Your task to perform on an android device: add a contact in the contacts app Image 0: 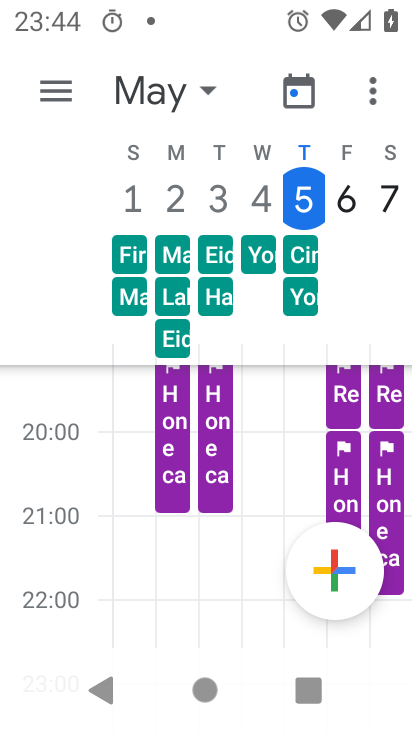
Step 0: press home button
Your task to perform on an android device: add a contact in the contacts app Image 1: 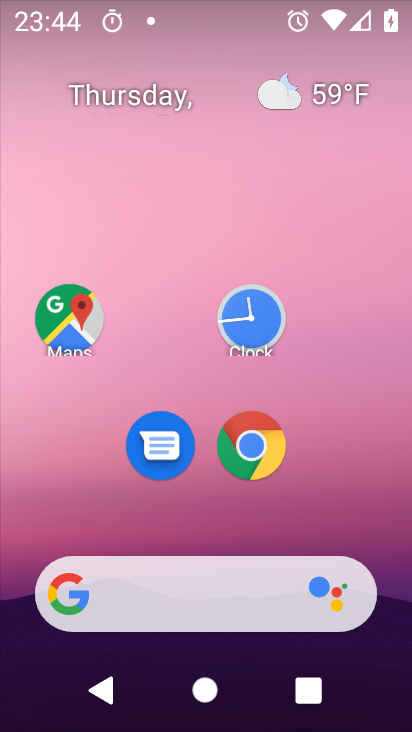
Step 1: drag from (190, 580) to (179, 7)
Your task to perform on an android device: add a contact in the contacts app Image 2: 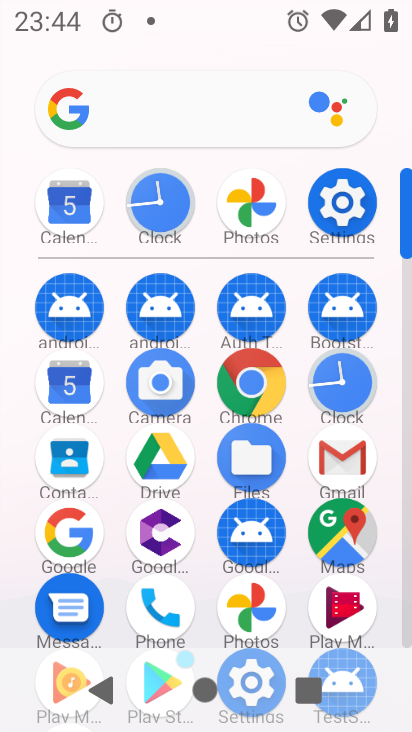
Step 2: click (77, 460)
Your task to perform on an android device: add a contact in the contacts app Image 3: 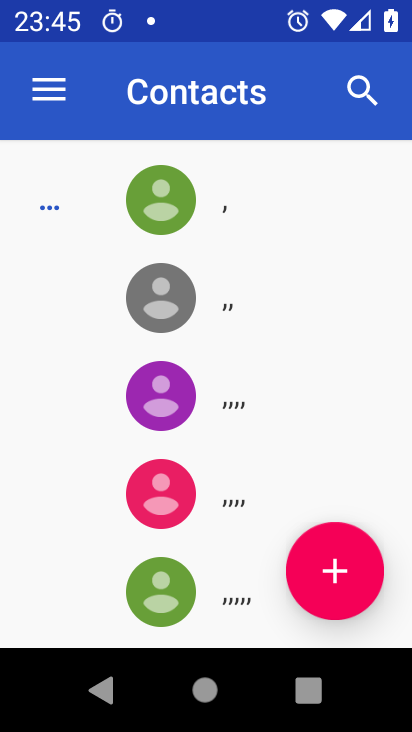
Step 3: click (320, 570)
Your task to perform on an android device: add a contact in the contacts app Image 4: 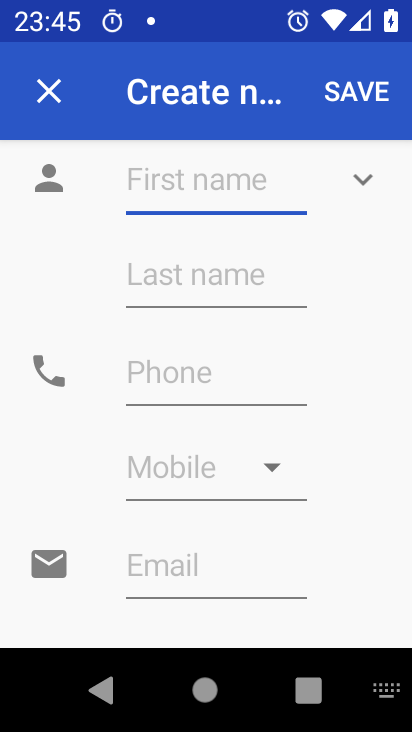
Step 4: type "sgfdsgsd"
Your task to perform on an android device: add a contact in the contacts app Image 5: 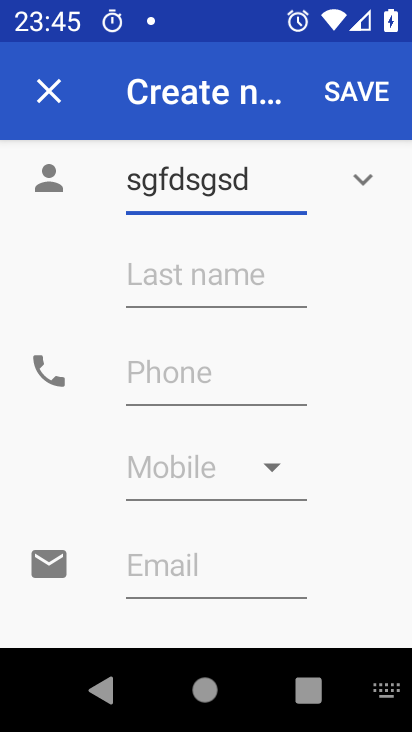
Step 5: click (289, 375)
Your task to perform on an android device: add a contact in the contacts app Image 6: 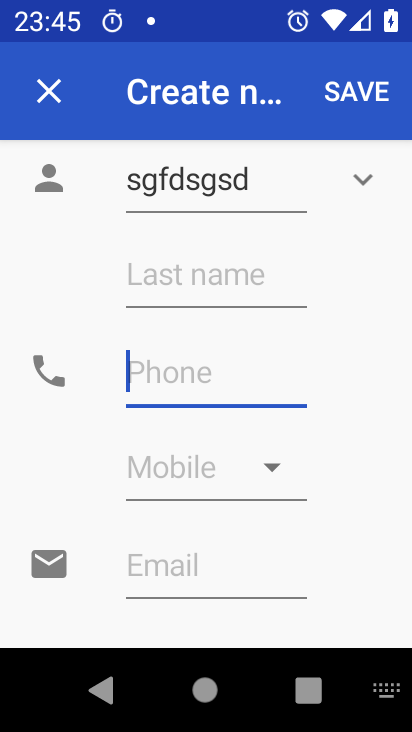
Step 6: click (214, 382)
Your task to perform on an android device: add a contact in the contacts app Image 7: 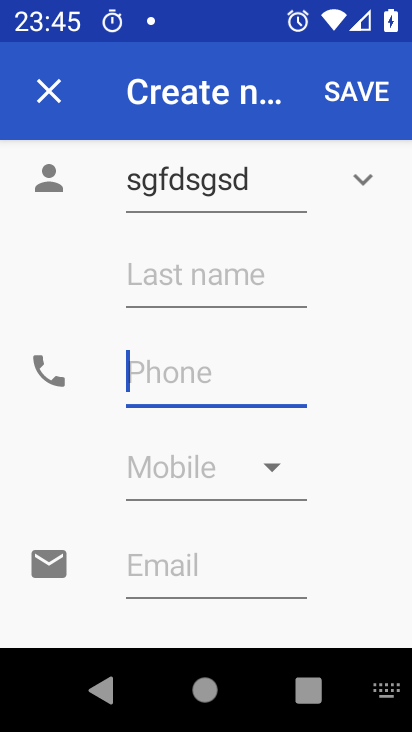
Step 7: type "937287423"
Your task to perform on an android device: add a contact in the contacts app Image 8: 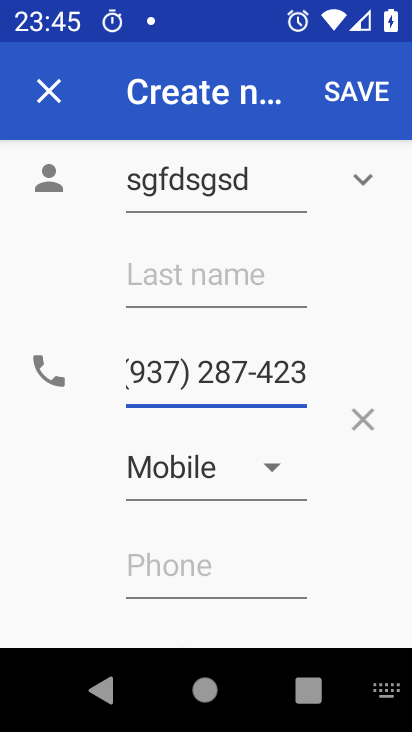
Step 8: click (364, 96)
Your task to perform on an android device: add a contact in the contacts app Image 9: 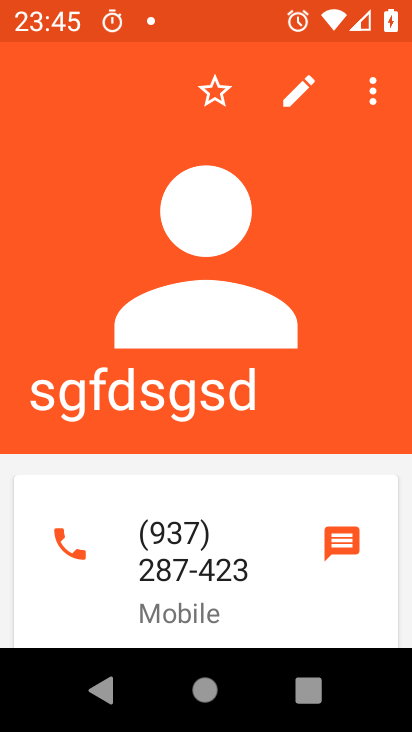
Step 9: task complete